Your task to perform on an android device: set an alarm Image 0: 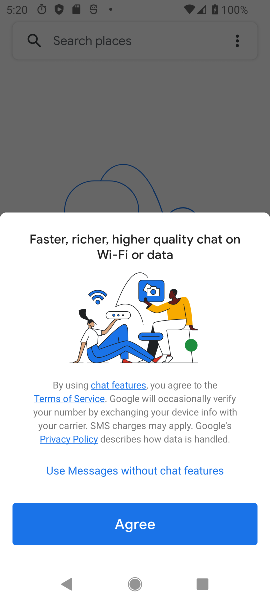
Step 0: press back button
Your task to perform on an android device: set an alarm Image 1: 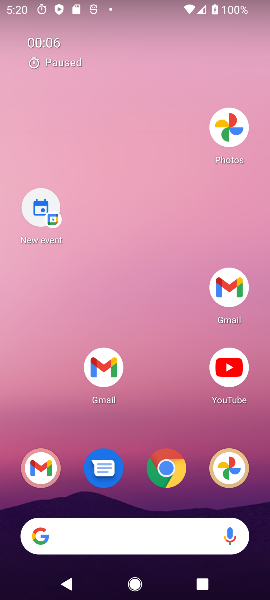
Step 1: drag from (159, 516) to (133, 100)
Your task to perform on an android device: set an alarm Image 2: 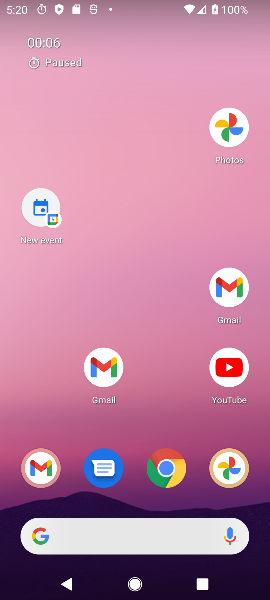
Step 2: drag from (159, 434) to (136, 119)
Your task to perform on an android device: set an alarm Image 3: 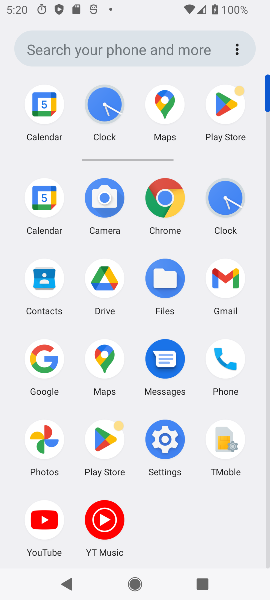
Step 3: click (225, 197)
Your task to perform on an android device: set an alarm Image 4: 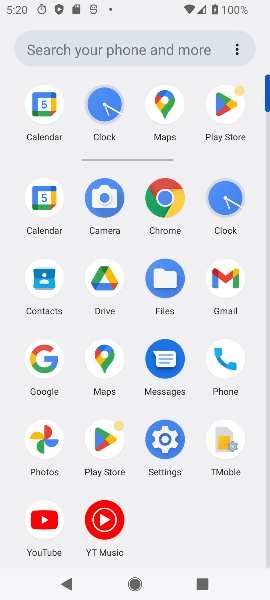
Step 4: click (225, 197)
Your task to perform on an android device: set an alarm Image 5: 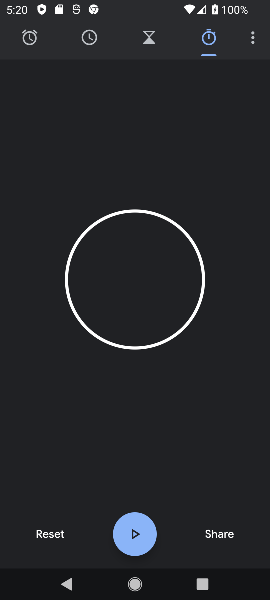
Step 5: click (224, 197)
Your task to perform on an android device: set an alarm Image 6: 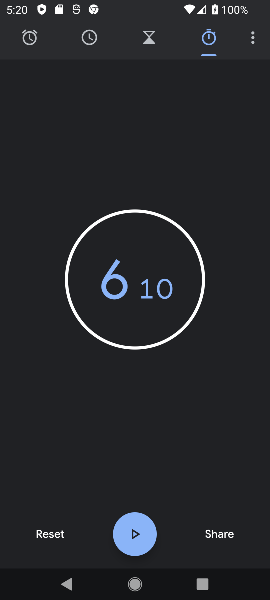
Step 6: click (224, 197)
Your task to perform on an android device: set an alarm Image 7: 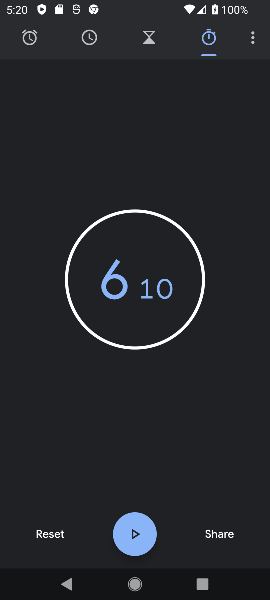
Step 7: click (30, 40)
Your task to perform on an android device: set an alarm Image 8: 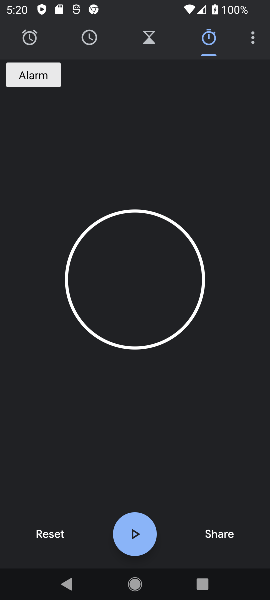
Step 8: click (30, 41)
Your task to perform on an android device: set an alarm Image 9: 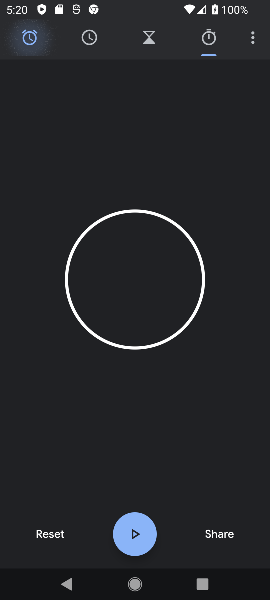
Step 9: click (30, 41)
Your task to perform on an android device: set an alarm Image 10: 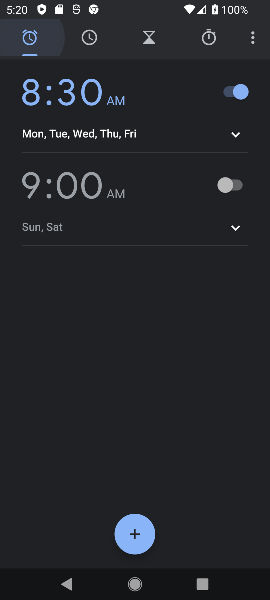
Step 10: click (30, 41)
Your task to perform on an android device: set an alarm Image 11: 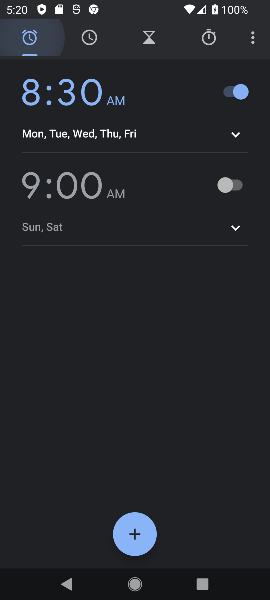
Step 11: click (30, 41)
Your task to perform on an android device: set an alarm Image 12: 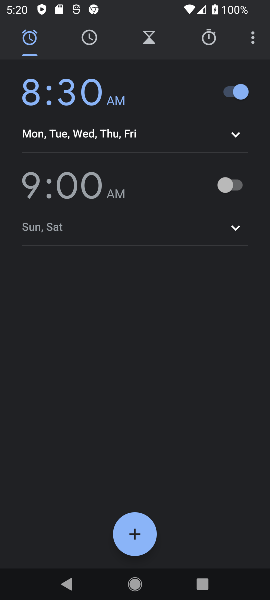
Step 12: click (223, 183)
Your task to perform on an android device: set an alarm Image 13: 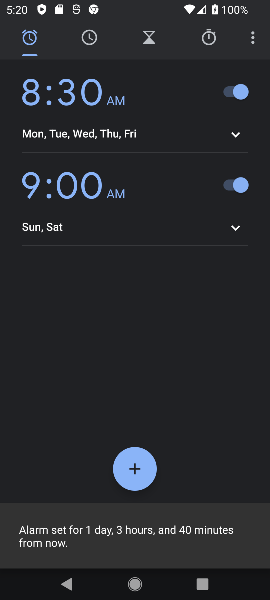
Step 13: task complete